Your task to perform on an android device: change notifications settings Image 0: 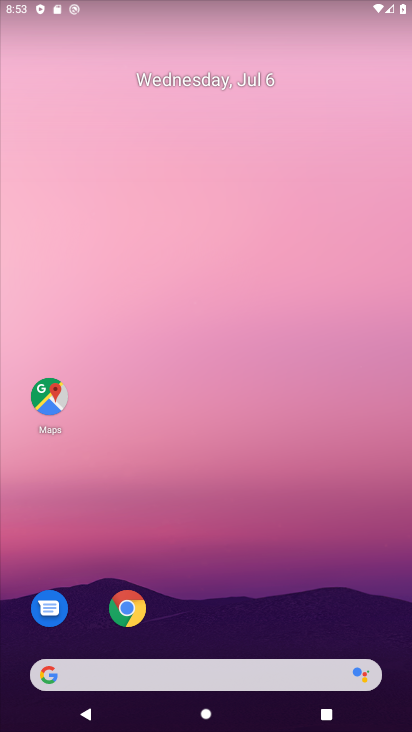
Step 0: click (169, 114)
Your task to perform on an android device: change notifications settings Image 1: 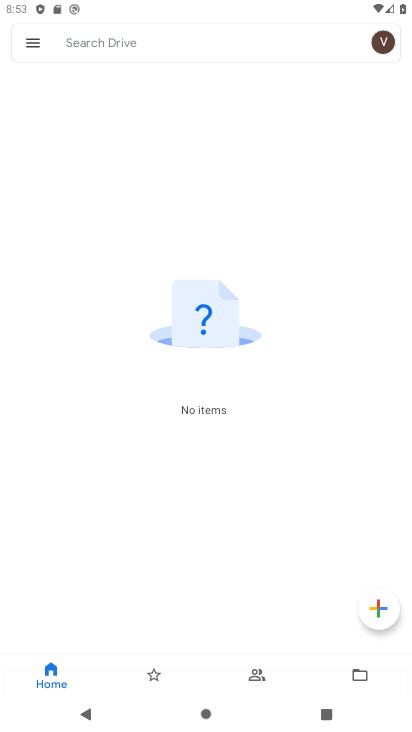
Step 1: press home button
Your task to perform on an android device: change notifications settings Image 2: 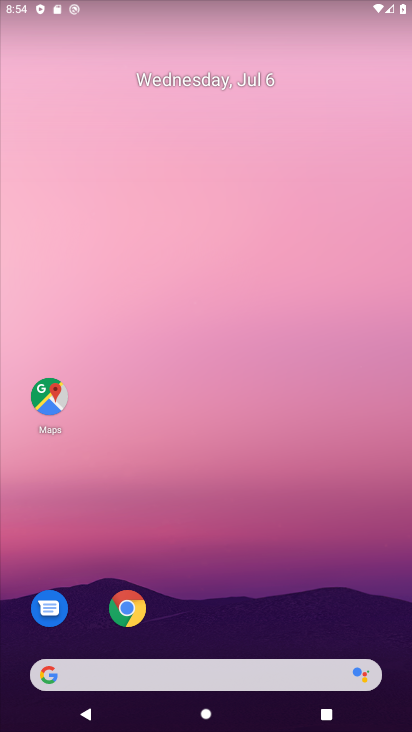
Step 2: drag from (290, 625) to (224, 163)
Your task to perform on an android device: change notifications settings Image 3: 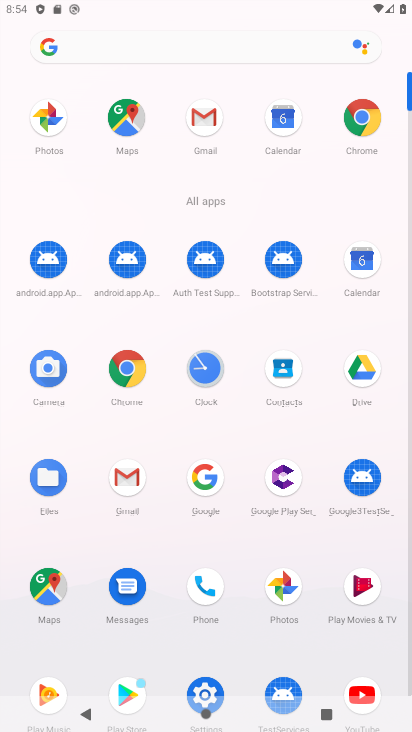
Step 3: click (214, 689)
Your task to perform on an android device: change notifications settings Image 4: 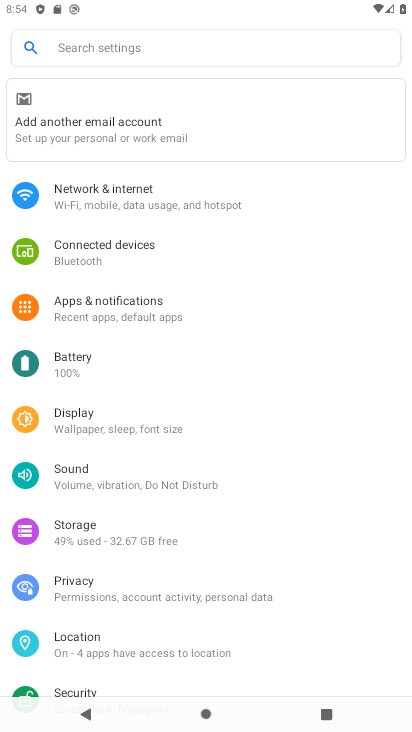
Step 4: click (178, 314)
Your task to perform on an android device: change notifications settings Image 5: 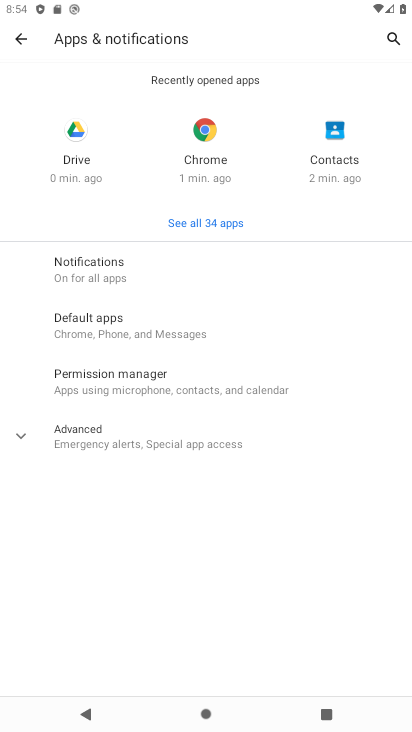
Step 5: click (160, 272)
Your task to perform on an android device: change notifications settings Image 6: 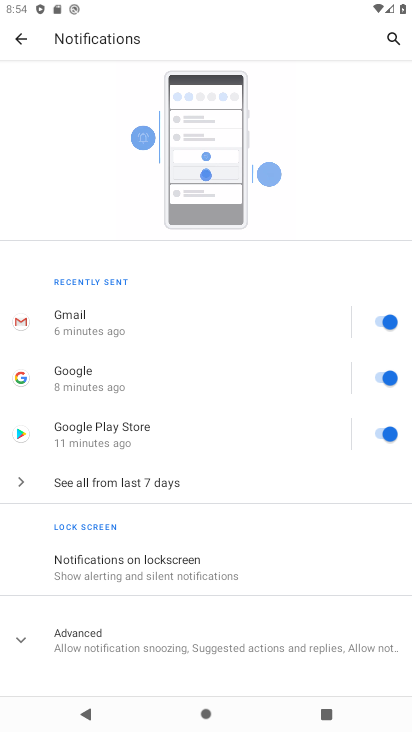
Step 6: click (266, 638)
Your task to perform on an android device: change notifications settings Image 7: 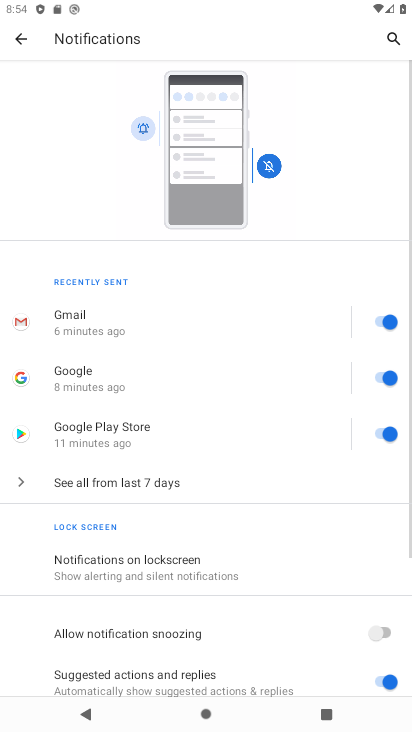
Step 7: drag from (266, 631) to (203, 234)
Your task to perform on an android device: change notifications settings Image 8: 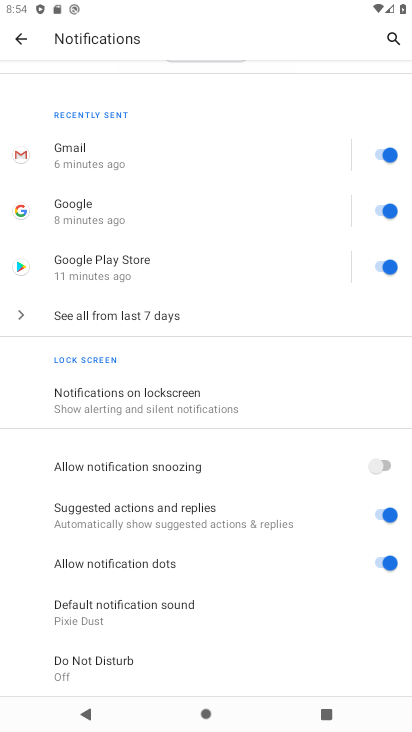
Step 8: click (383, 561)
Your task to perform on an android device: change notifications settings Image 9: 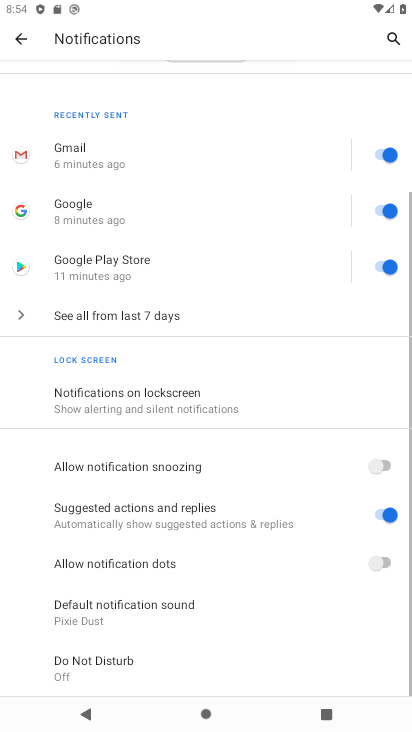
Step 9: click (382, 516)
Your task to perform on an android device: change notifications settings Image 10: 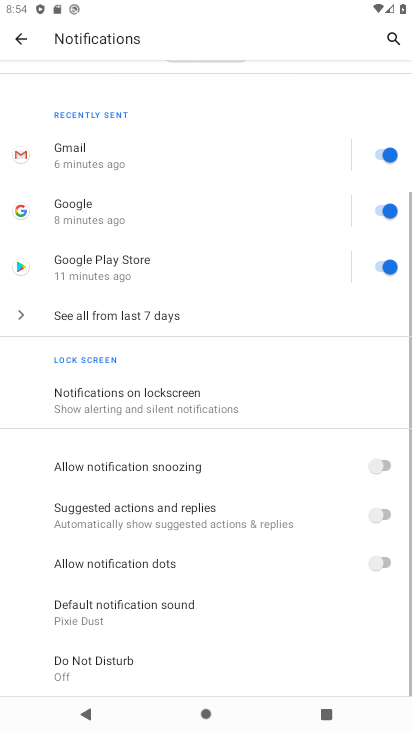
Step 10: click (381, 466)
Your task to perform on an android device: change notifications settings Image 11: 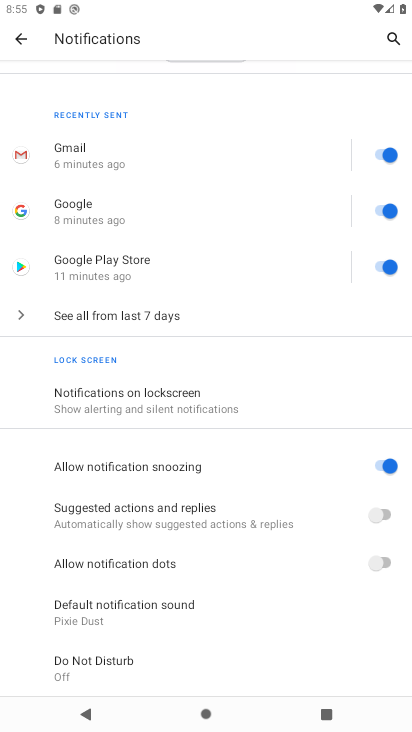
Step 11: task complete